Your task to perform on an android device: turn on priority inbox in the gmail app Image 0: 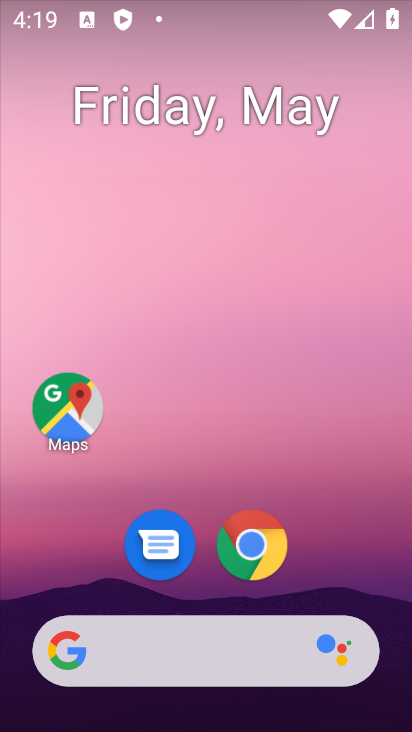
Step 0: drag from (349, 509) to (340, 134)
Your task to perform on an android device: turn on priority inbox in the gmail app Image 1: 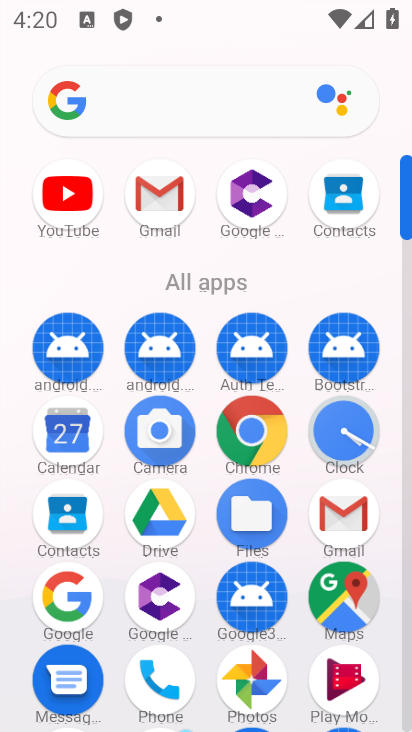
Step 1: click (329, 505)
Your task to perform on an android device: turn on priority inbox in the gmail app Image 2: 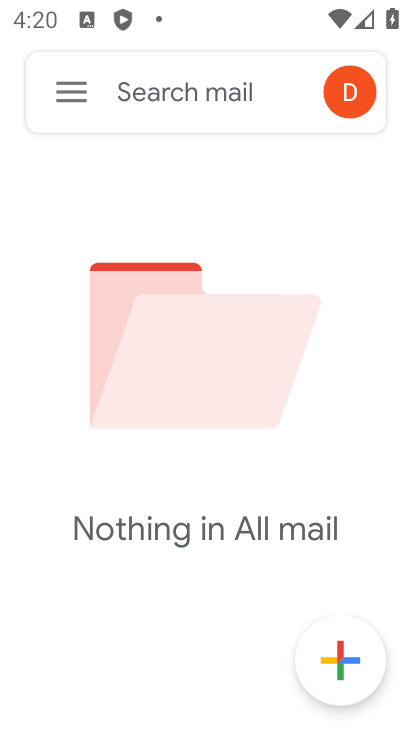
Step 2: click (56, 89)
Your task to perform on an android device: turn on priority inbox in the gmail app Image 3: 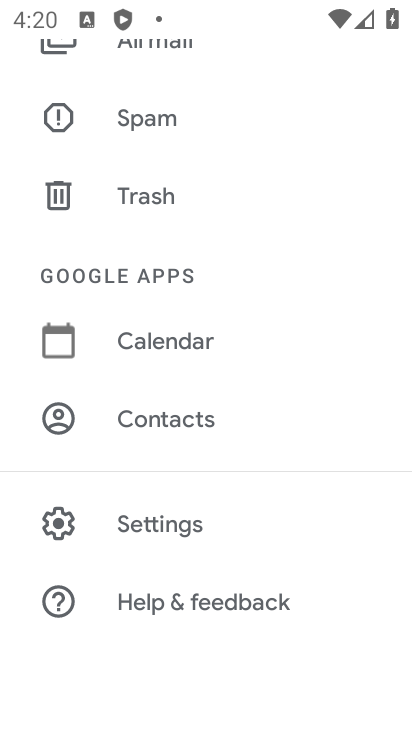
Step 3: click (171, 492)
Your task to perform on an android device: turn on priority inbox in the gmail app Image 4: 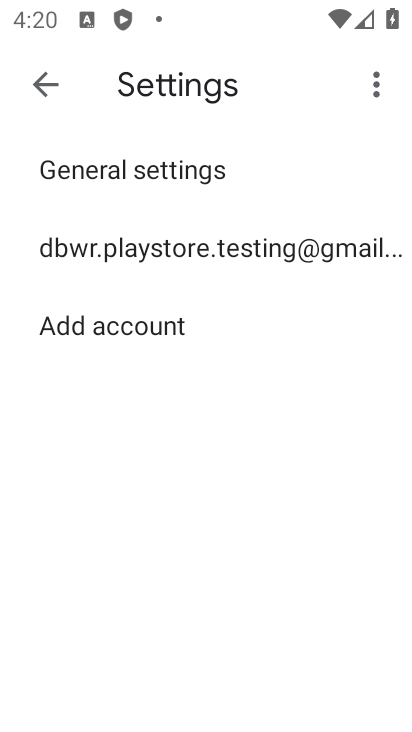
Step 4: click (135, 249)
Your task to perform on an android device: turn on priority inbox in the gmail app Image 5: 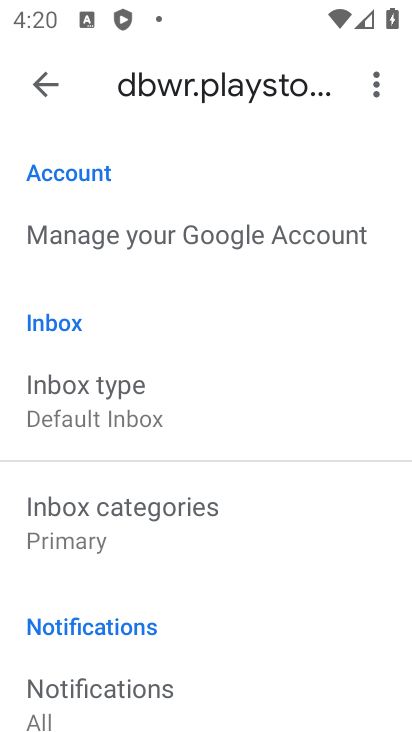
Step 5: drag from (227, 292) to (208, 731)
Your task to perform on an android device: turn on priority inbox in the gmail app Image 6: 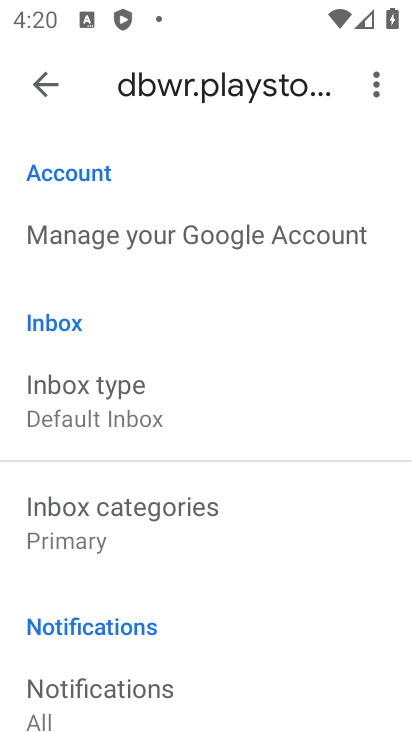
Step 6: drag from (243, 622) to (281, 139)
Your task to perform on an android device: turn on priority inbox in the gmail app Image 7: 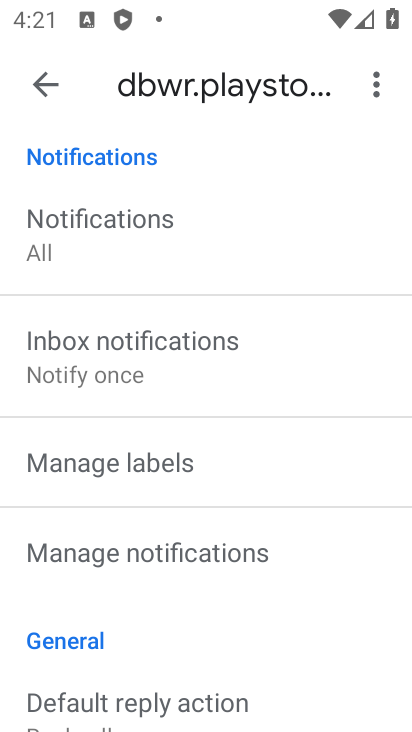
Step 7: drag from (221, 160) to (199, 727)
Your task to perform on an android device: turn on priority inbox in the gmail app Image 8: 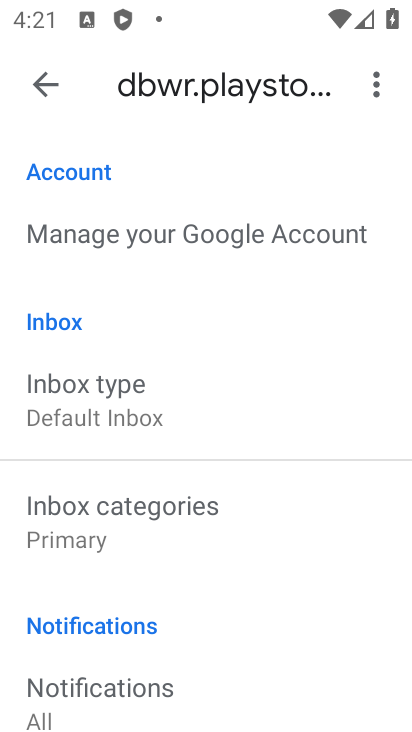
Step 8: click (226, 400)
Your task to perform on an android device: turn on priority inbox in the gmail app Image 9: 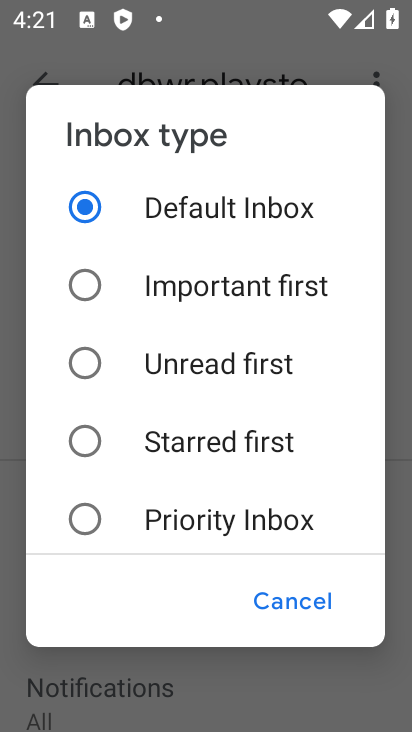
Step 9: click (210, 512)
Your task to perform on an android device: turn on priority inbox in the gmail app Image 10: 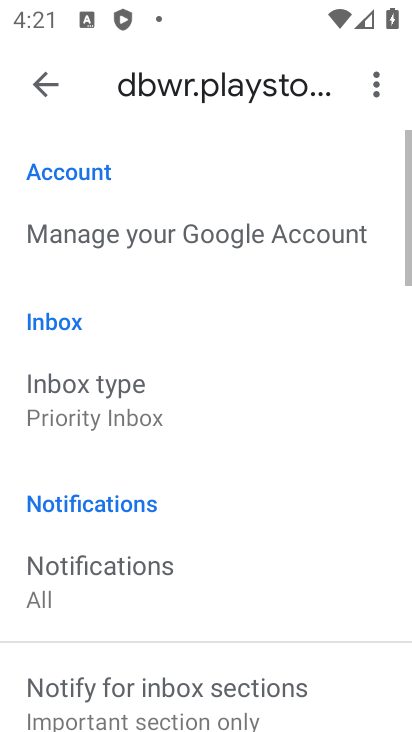
Step 10: task complete